Your task to perform on an android device: toggle show notifications on the lock screen Image 0: 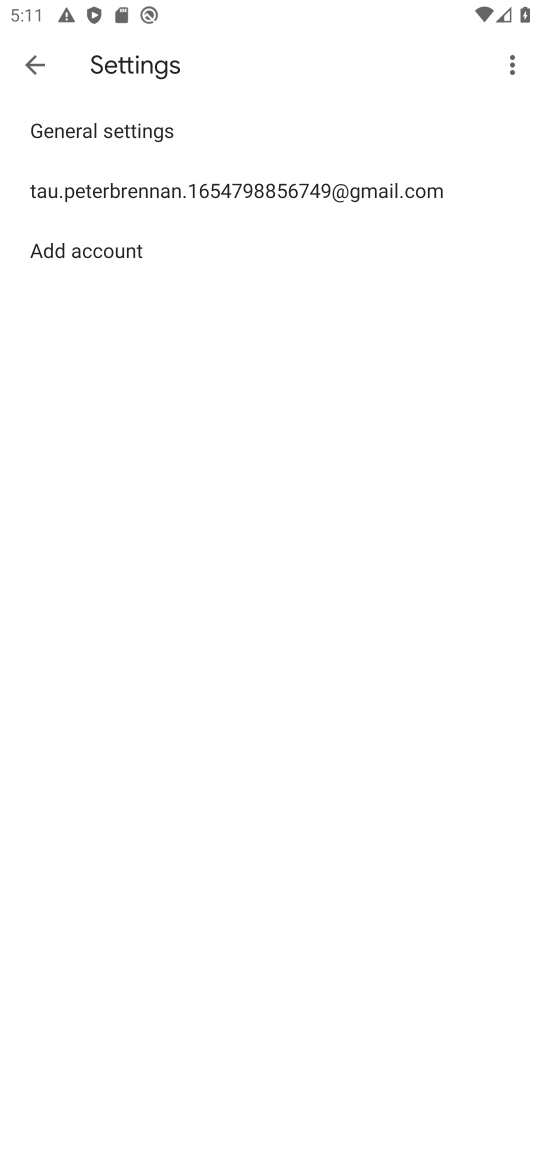
Step 0: press home button
Your task to perform on an android device: toggle show notifications on the lock screen Image 1: 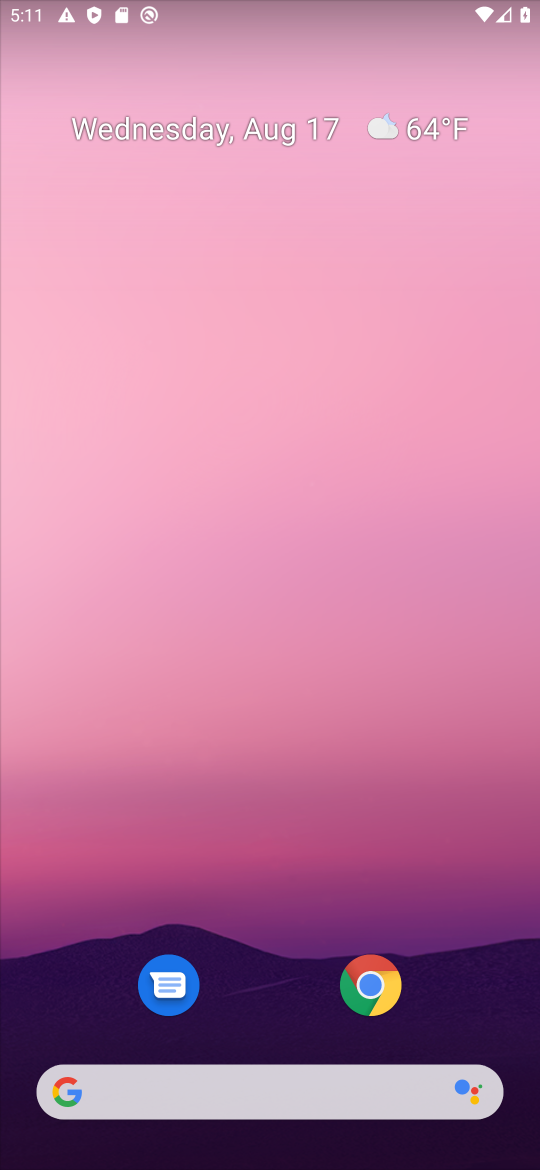
Step 1: drag from (239, 1079) to (243, 206)
Your task to perform on an android device: toggle show notifications on the lock screen Image 2: 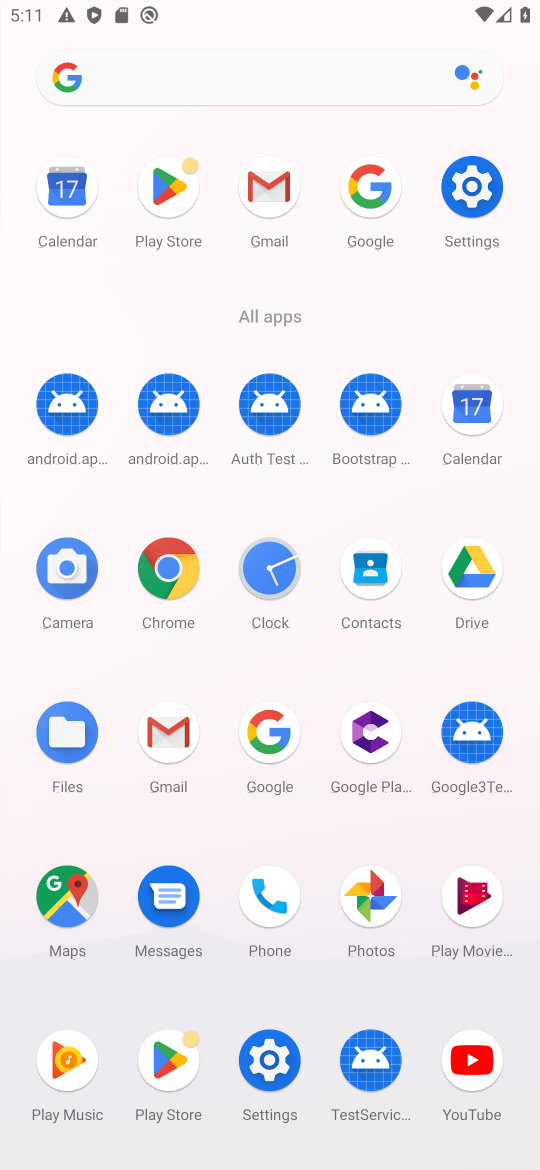
Step 2: click (472, 186)
Your task to perform on an android device: toggle show notifications on the lock screen Image 3: 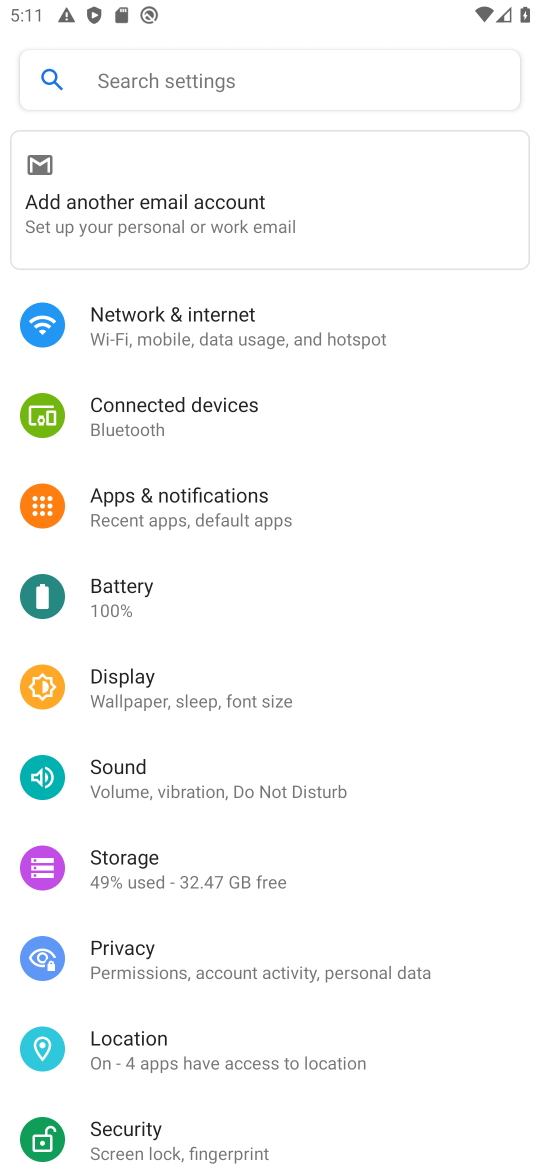
Step 3: click (209, 505)
Your task to perform on an android device: toggle show notifications on the lock screen Image 4: 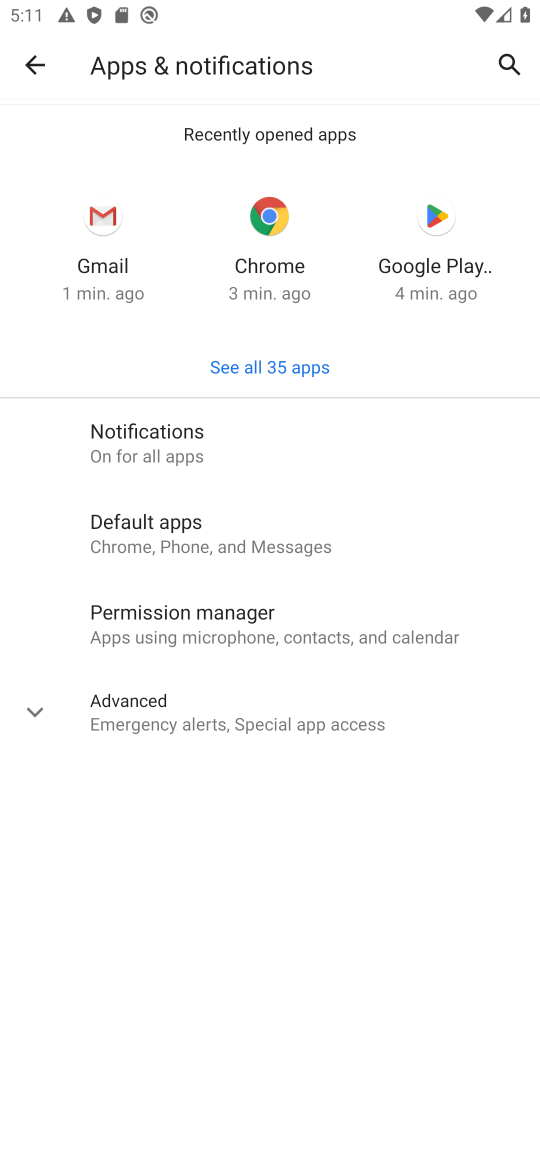
Step 4: click (174, 434)
Your task to perform on an android device: toggle show notifications on the lock screen Image 5: 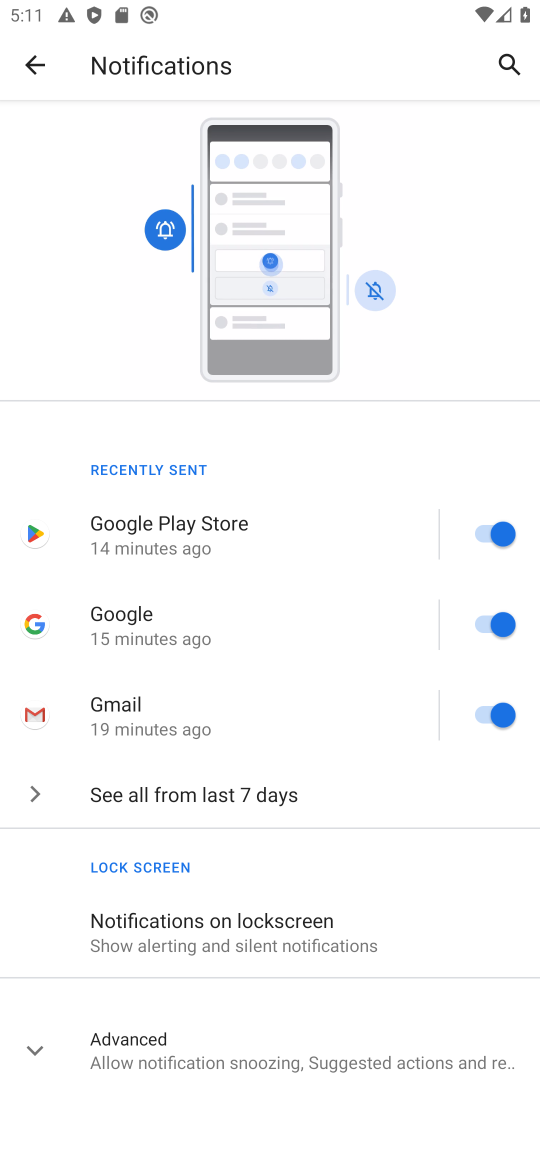
Step 5: click (226, 941)
Your task to perform on an android device: toggle show notifications on the lock screen Image 6: 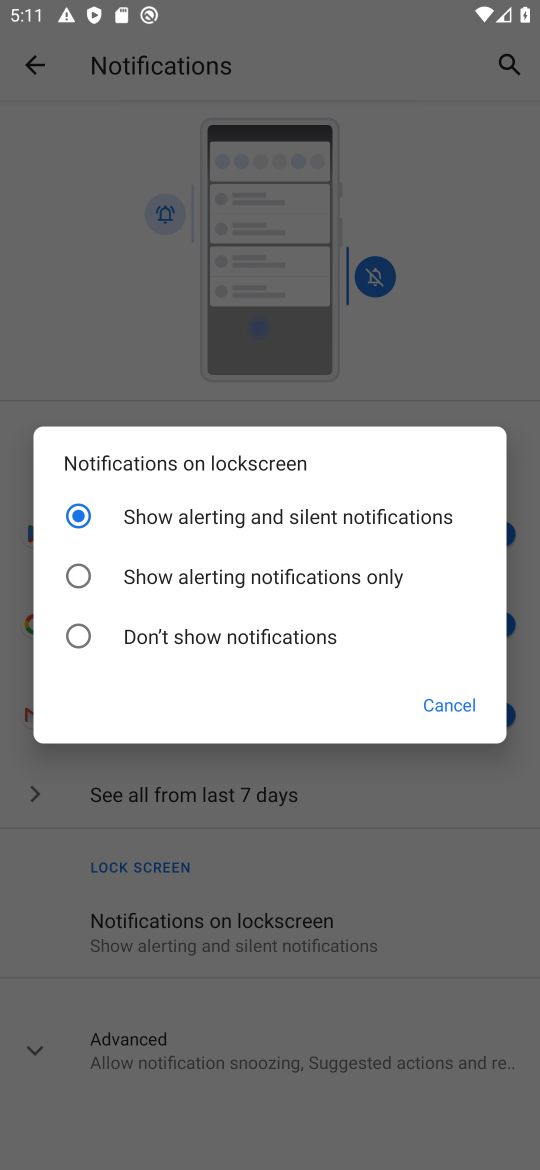
Step 6: click (81, 624)
Your task to perform on an android device: toggle show notifications on the lock screen Image 7: 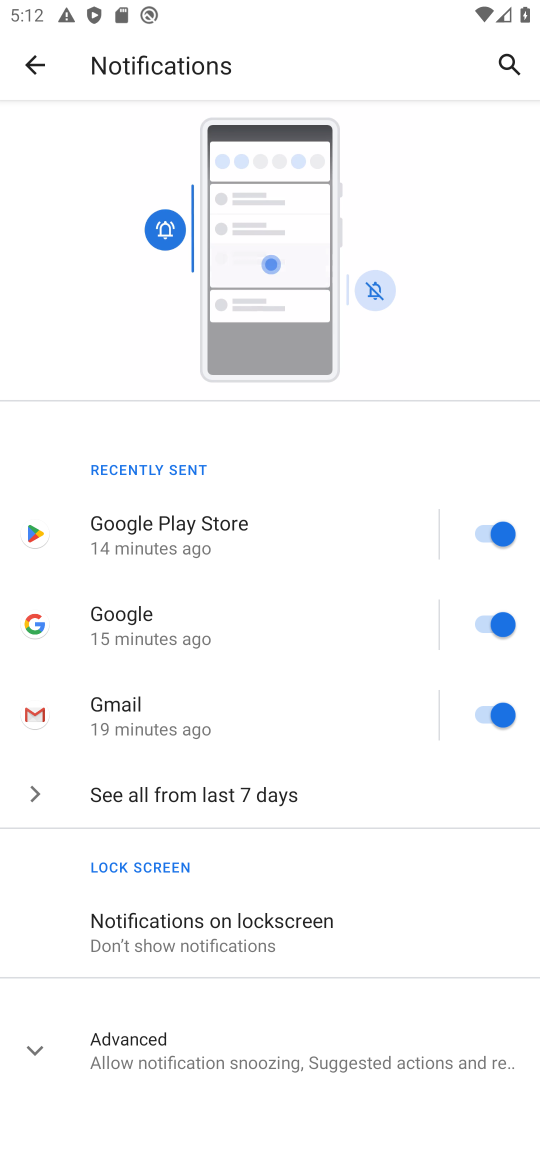
Step 7: task complete